Your task to perform on an android device: turn on the 12-hour format for clock Image 0: 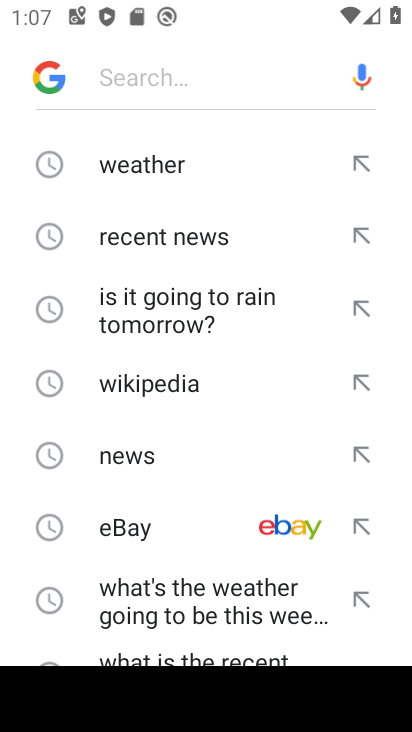
Step 0: press home button
Your task to perform on an android device: turn on the 12-hour format for clock Image 1: 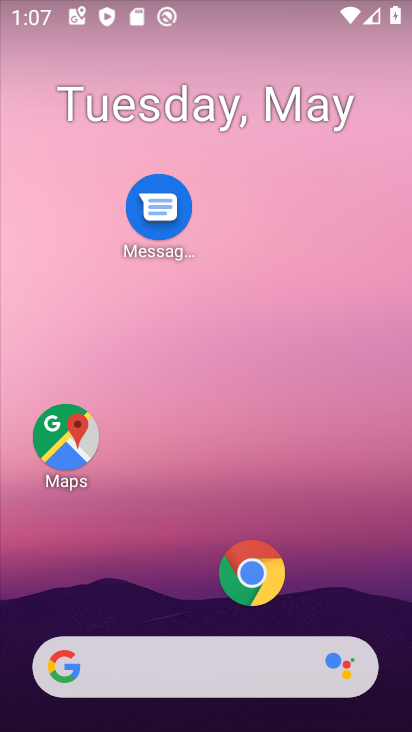
Step 1: click (310, 37)
Your task to perform on an android device: turn on the 12-hour format for clock Image 2: 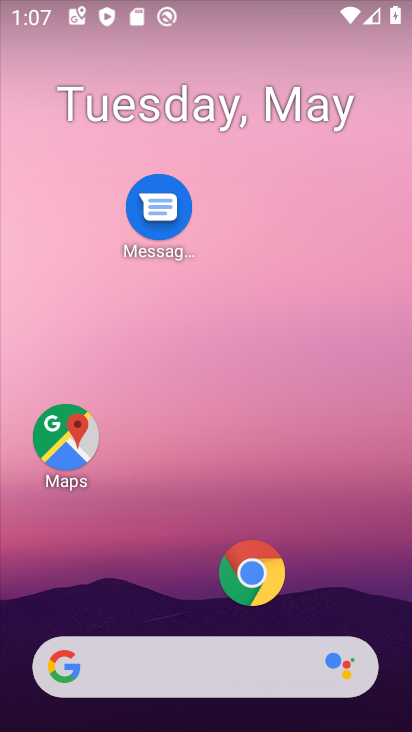
Step 2: drag from (219, 29) to (242, 4)
Your task to perform on an android device: turn on the 12-hour format for clock Image 3: 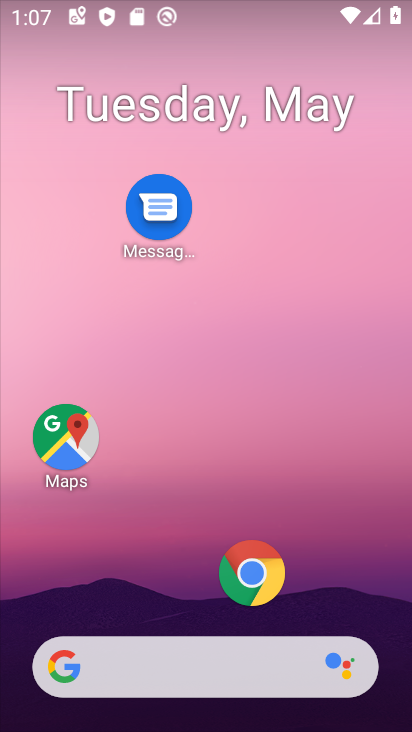
Step 3: drag from (172, 605) to (244, 39)
Your task to perform on an android device: turn on the 12-hour format for clock Image 4: 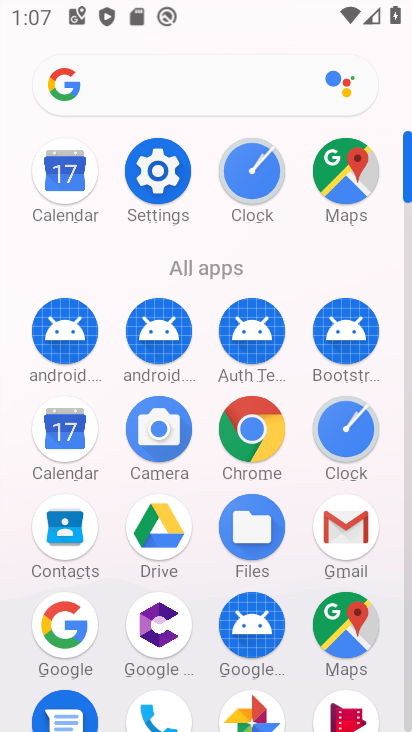
Step 4: click (143, 185)
Your task to perform on an android device: turn on the 12-hour format for clock Image 5: 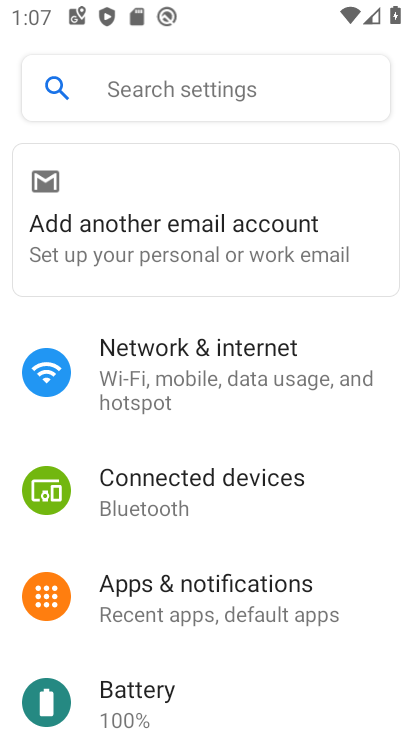
Step 5: drag from (175, 602) to (191, 163)
Your task to perform on an android device: turn on the 12-hour format for clock Image 6: 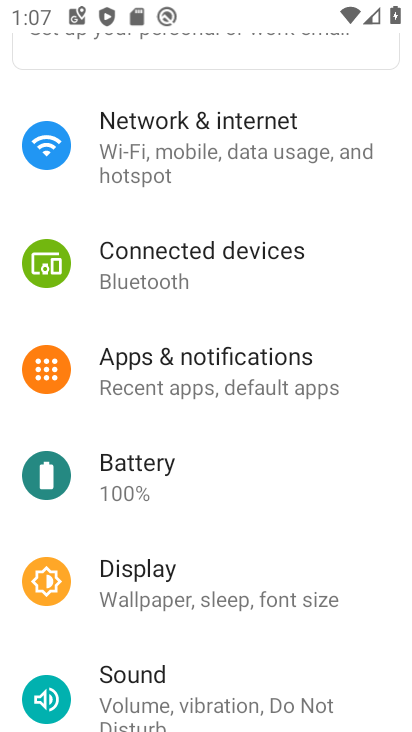
Step 6: drag from (198, 652) to (265, 11)
Your task to perform on an android device: turn on the 12-hour format for clock Image 7: 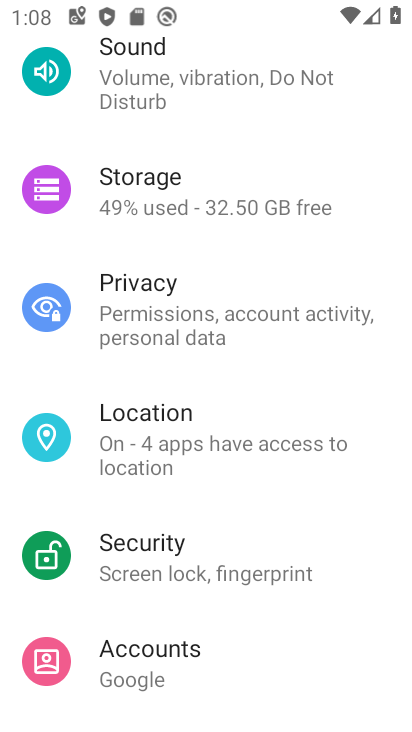
Step 7: drag from (251, 602) to (276, 219)
Your task to perform on an android device: turn on the 12-hour format for clock Image 8: 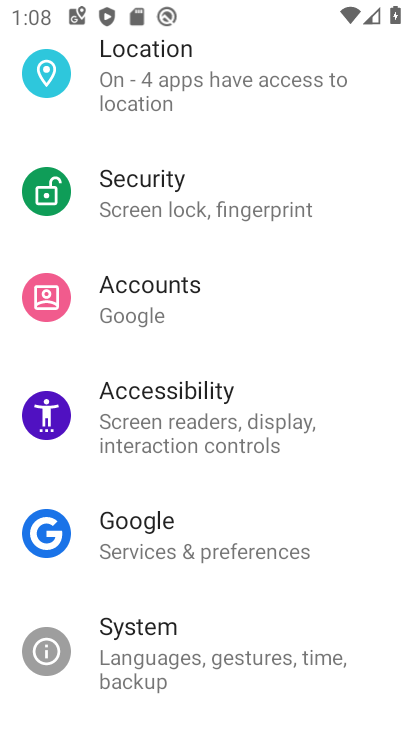
Step 8: drag from (193, 522) to (200, 353)
Your task to perform on an android device: turn on the 12-hour format for clock Image 9: 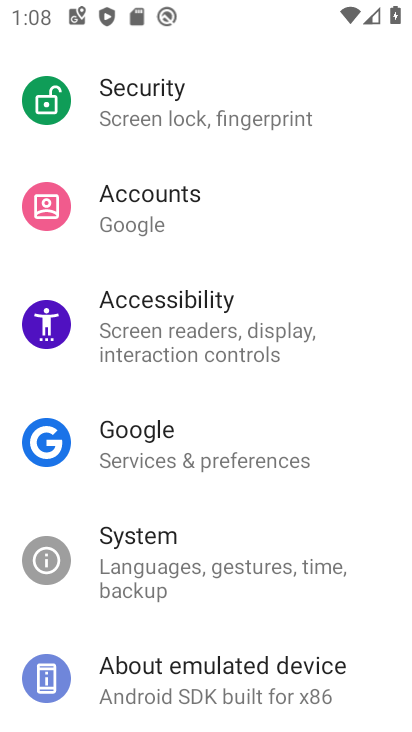
Step 9: click (157, 582)
Your task to perform on an android device: turn on the 12-hour format for clock Image 10: 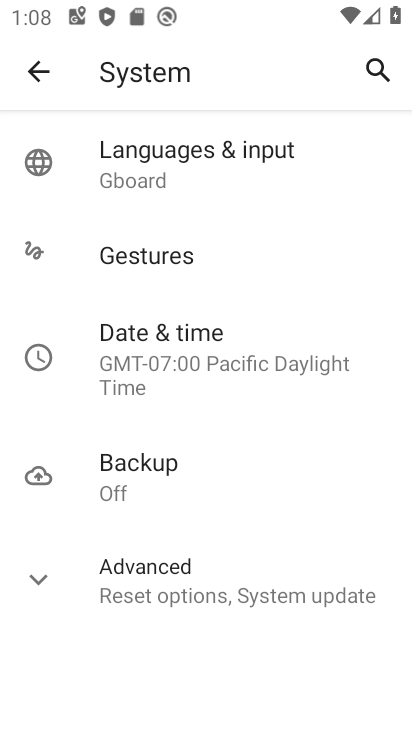
Step 10: click (168, 330)
Your task to perform on an android device: turn on the 12-hour format for clock Image 11: 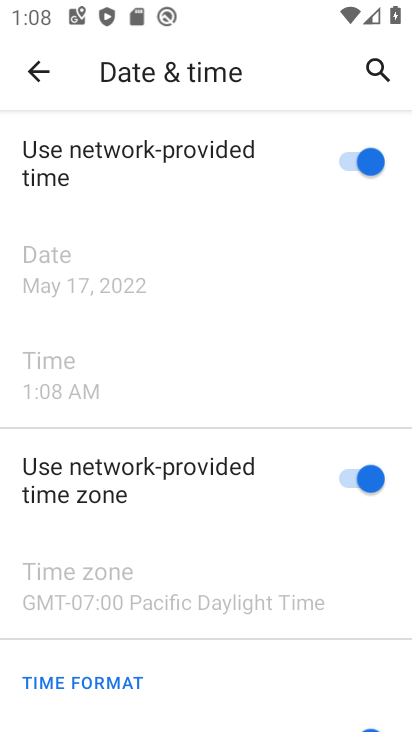
Step 11: task complete